Your task to perform on an android device: Do I have any events tomorrow? Image 0: 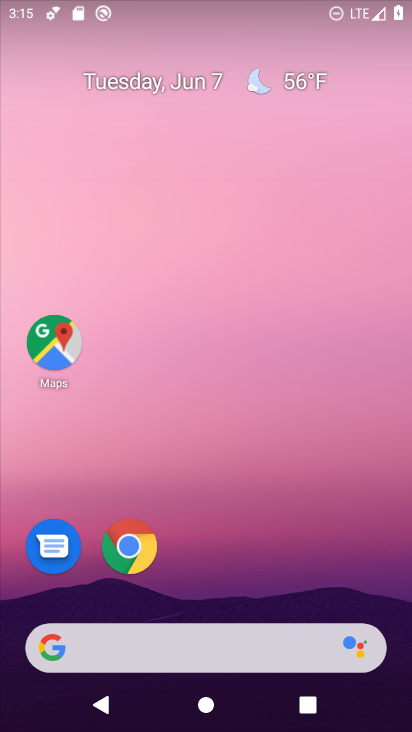
Step 0: drag from (306, 519) to (208, 12)
Your task to perform on an android device: Do I have any events tomorrow? Image 1: 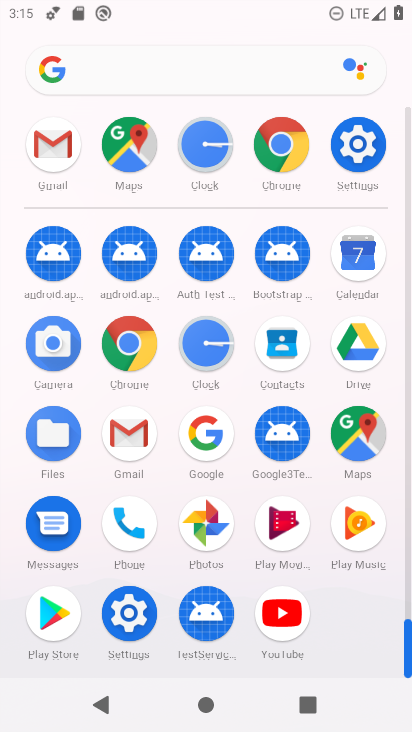
Step 1: drag from (8, 533) to (20, 199)
Your task to perform on an android device: Do I have any events tomorrow? Image 2: 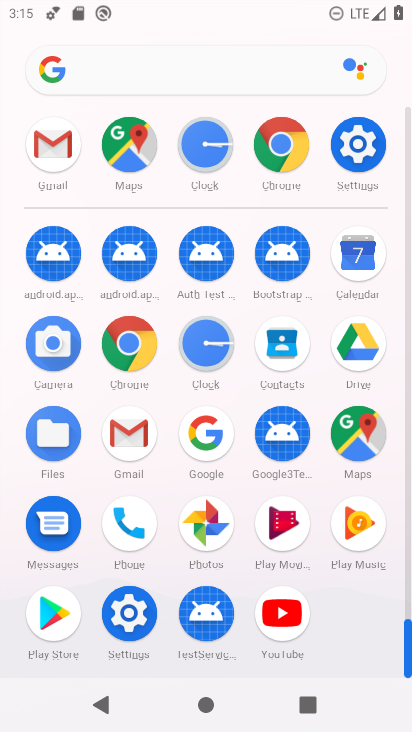
Step 2: click (357, 246)
Your task to perform on an android device: Do I have any events tomorrow? Image 3: 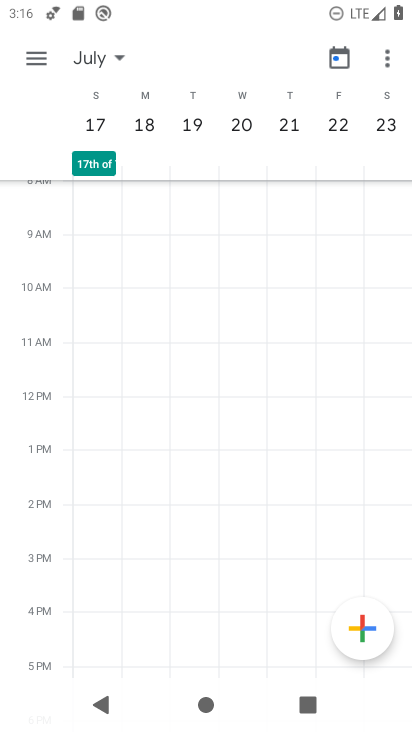
Step 3: click (334, 53)
Your task to perform on an android device: Do I have any events tomorrow? Image 4: 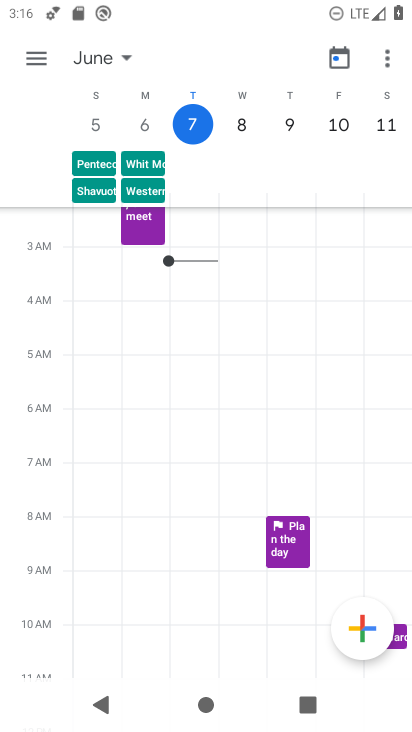
Step 4: click (245, 123)
Your task to perform on an android device: Do I have any events tomorrow? Image 5: 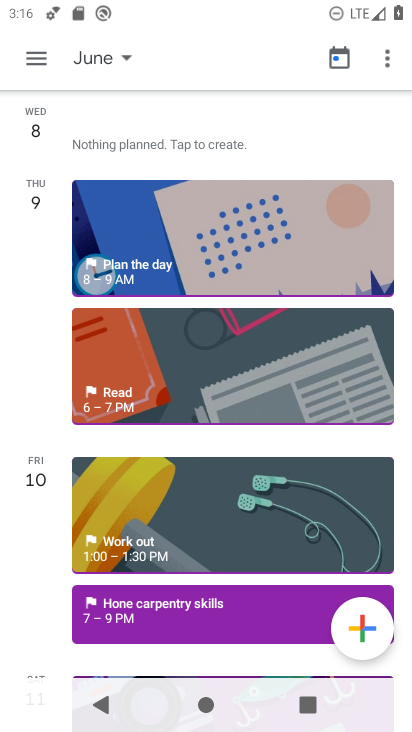
Step 5: task complete